Your task to perform on an android device: turn notification dots off Image 0: 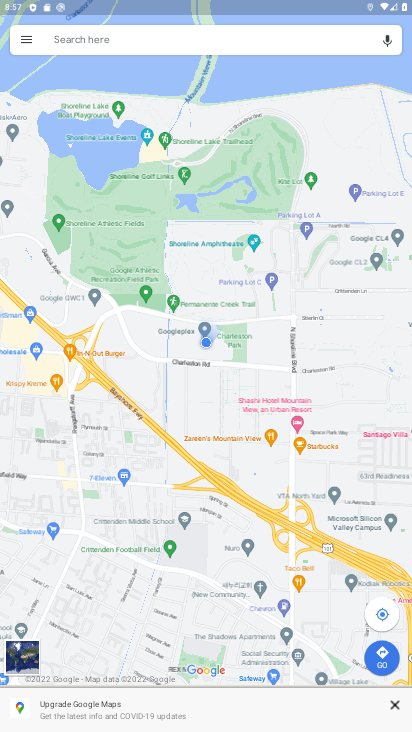
Step 0: press home button
Your task to perform on an android device: turn notification dots off Image 1: 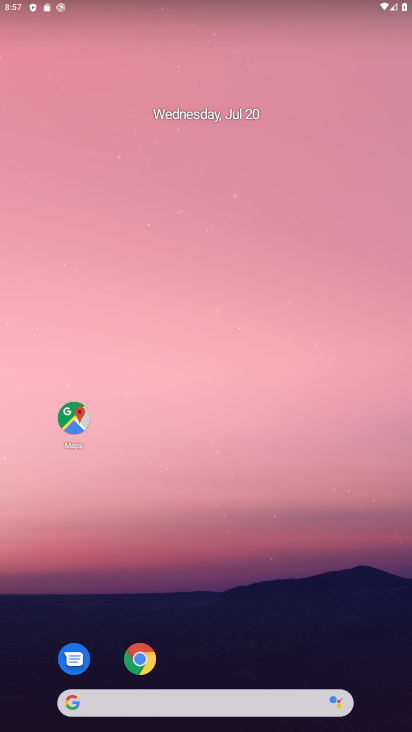
Step 1: drag from (203, 661) to (112, 53)
Your task to perform on an android device: turn notification dots off Image 2: 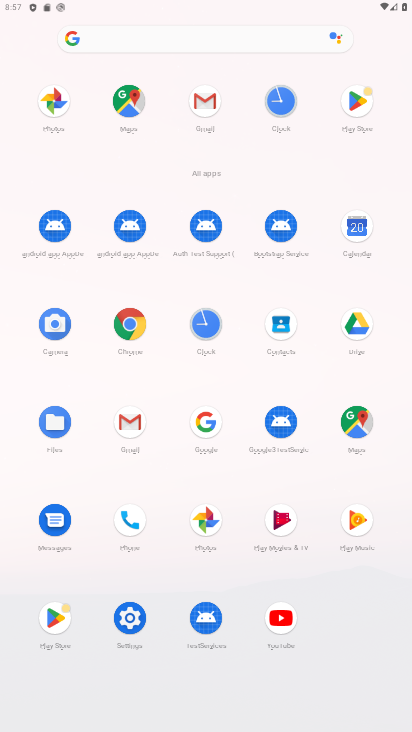
Step 2: click (136, 624)
Your task to perform on an android device: turn notification dots off Image 3: 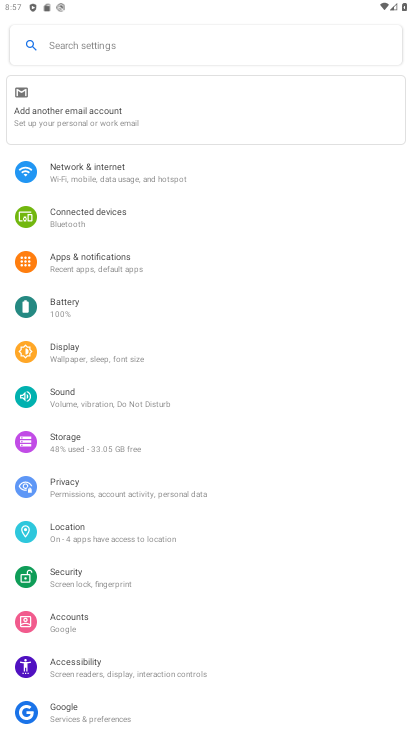
Step 3: click (118, 256)
Your task to perform on an android device: turn notification dots off Image 4: 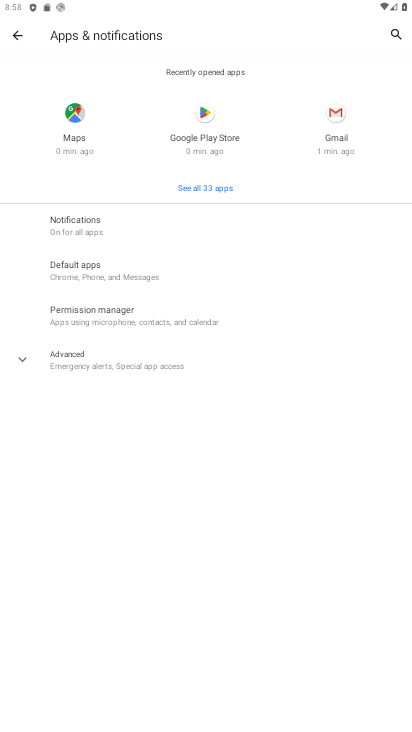
Step 4: click (62, 233)
Your task to perform on an android device: turn notification dots off Image 5: 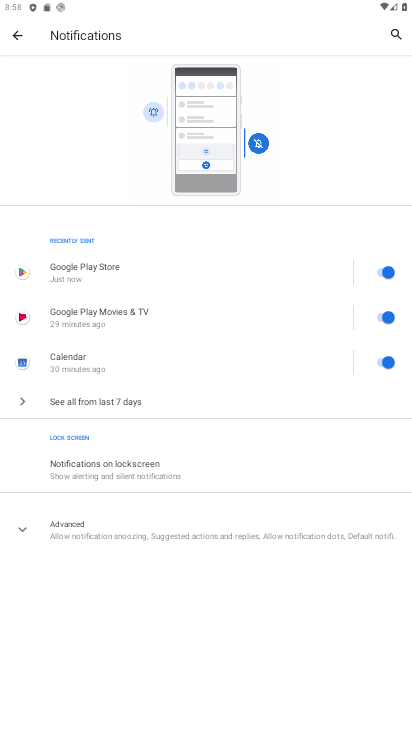
Step 5: click (88, 518)
Your task to perform on an android device: turn notification dots off Image 6: 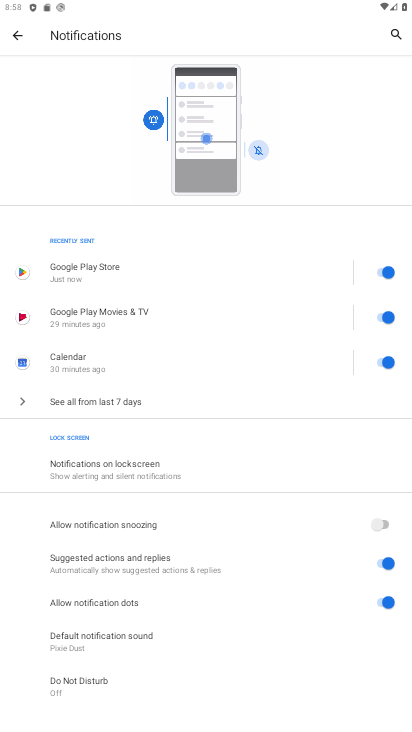
Step 6: click (380, 601)
Your task to perform on an android device: turn notification dots off Image 7: 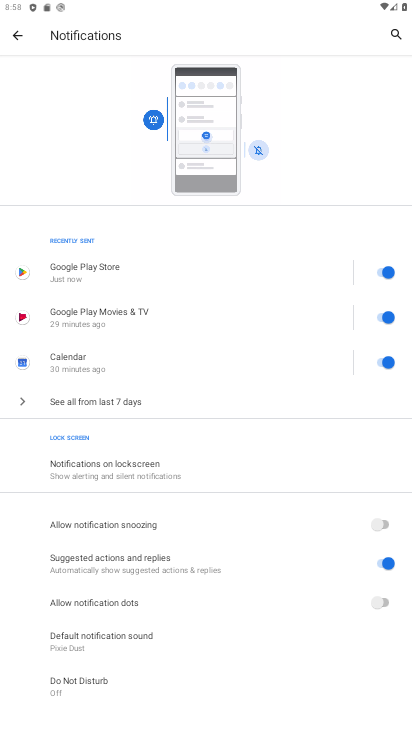
Step 7: task complete